Your task to perform on an android device: set the stopwatch Image 0: 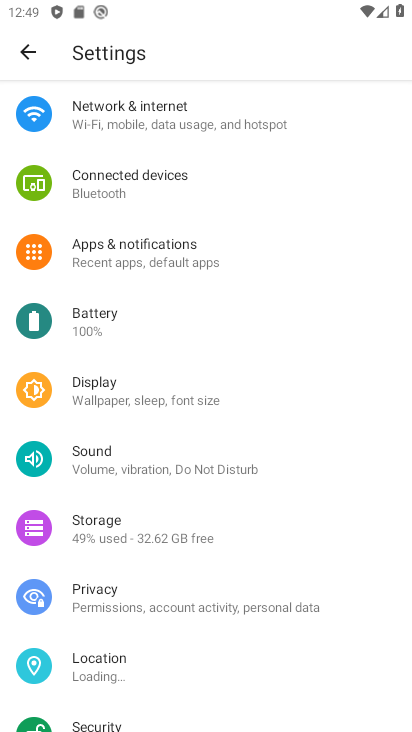
Step 0: press back button
Your task to perform on an android device: set the stopwatch Image 1: 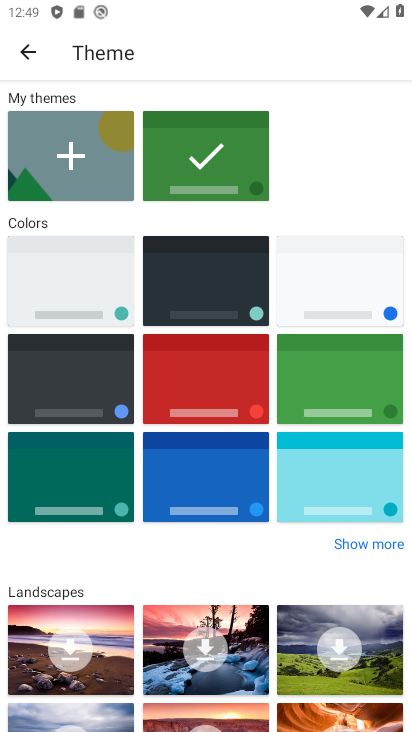
Step 1: press back button
Your task to perform on an android device: set the stopwatch Image 2: 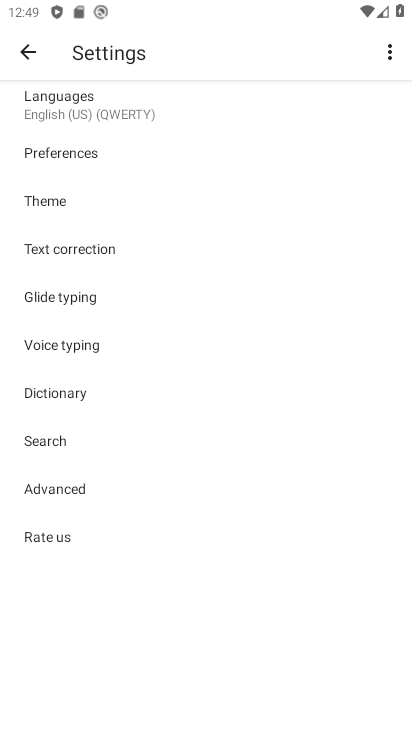
Step 2: press home button
Your task to perform on an android device: set the stopwatch Image 3: 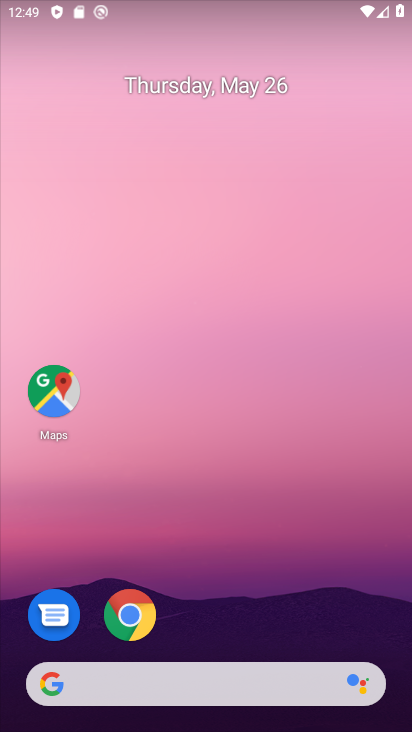
Step 3: drag from (230, 589) to (249, 80)
Your task to perform on an android device: set the stopwatch Image 4: 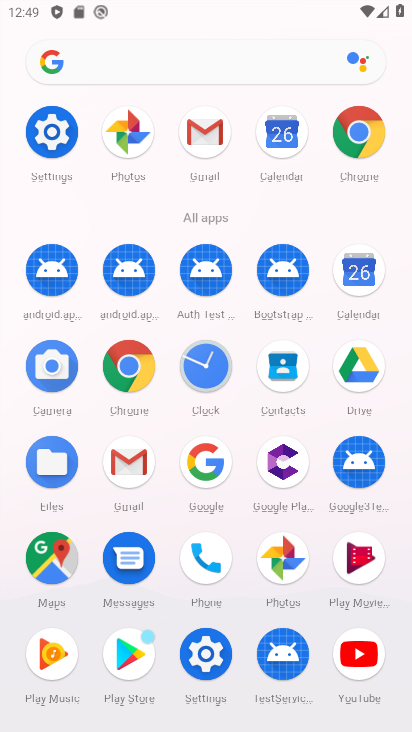
Step 4: click (199, 368)
Your task to perform on an android device: set the stopwatch Image 5: 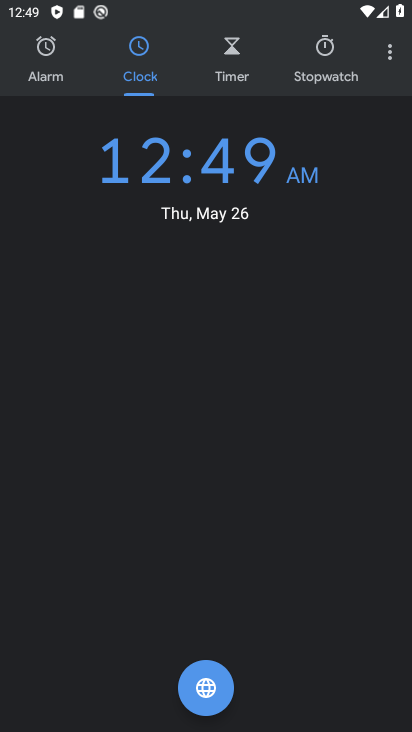
Step 5: click (334, 48)
Your task to perform on an android device: set the stopwatch Image 6: 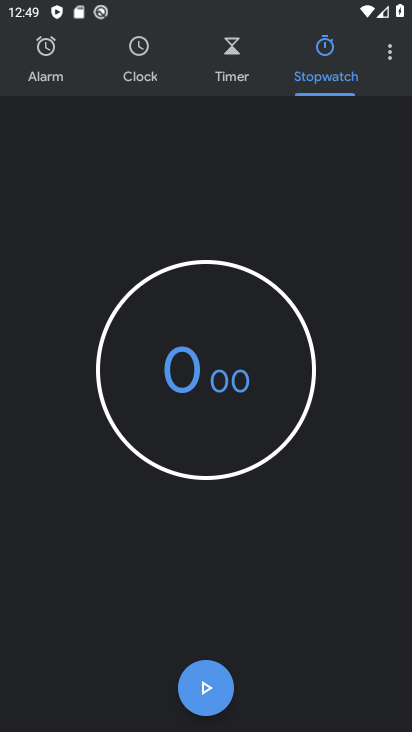
Step 6: task complete